Your task to perform on an android device: toggle translation in the chrome app Image 0: 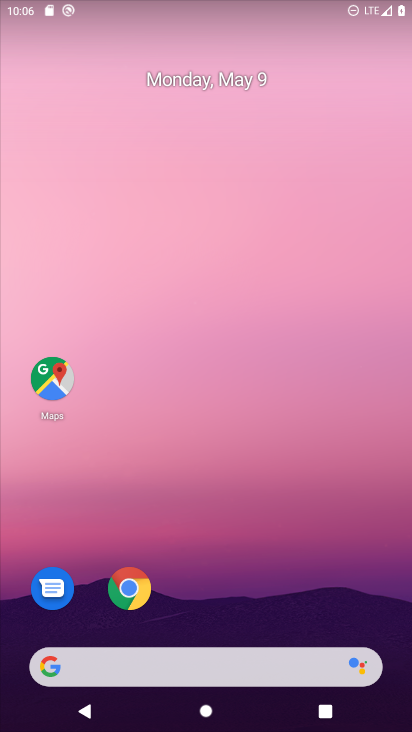
Step 0: click (114, 590)
Your task to perform on an android device: toggle translation in the chrome app Image 1: 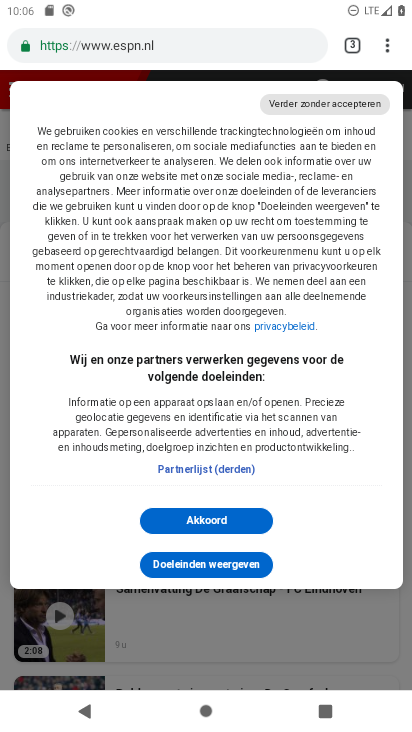
Step 1: click (376, 47)
Your task to perform on an android device: toggle translation in the chrome app Image 2: 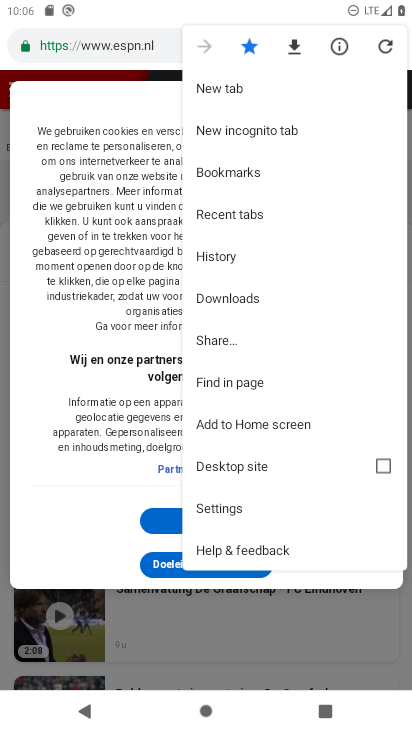
Step 2: click (255, 519)
Your task to perform on an android device: toggle translation in the chrome app Image 3: 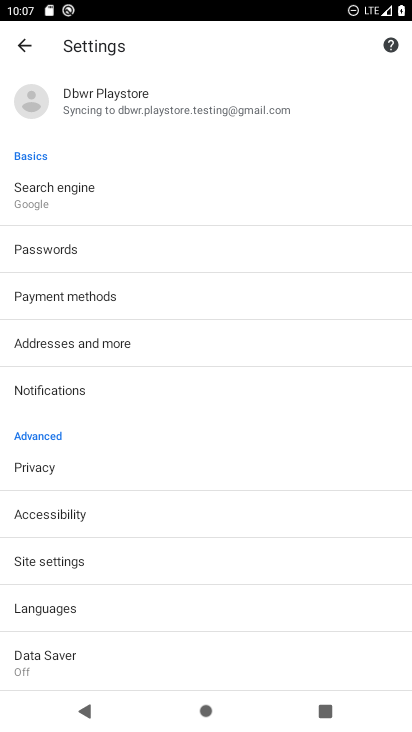
Step 3: click (180, 592)
Your task to perform on an android device: toggle translation in the chrome app Image 4: 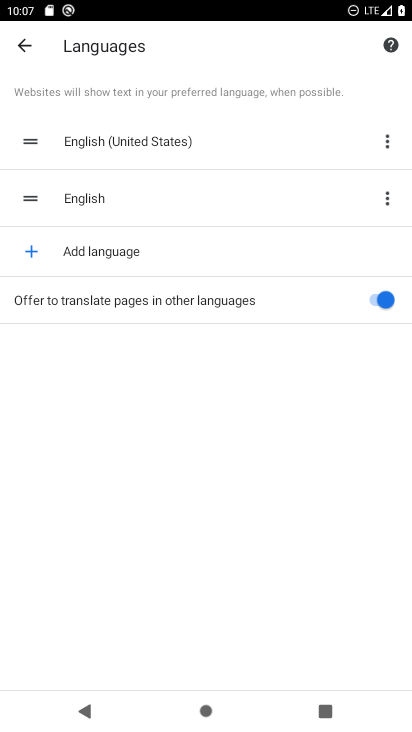
Step 4: task complete